Your task to perform on an android device: Search for the best rated vacuums on Target Image 0: 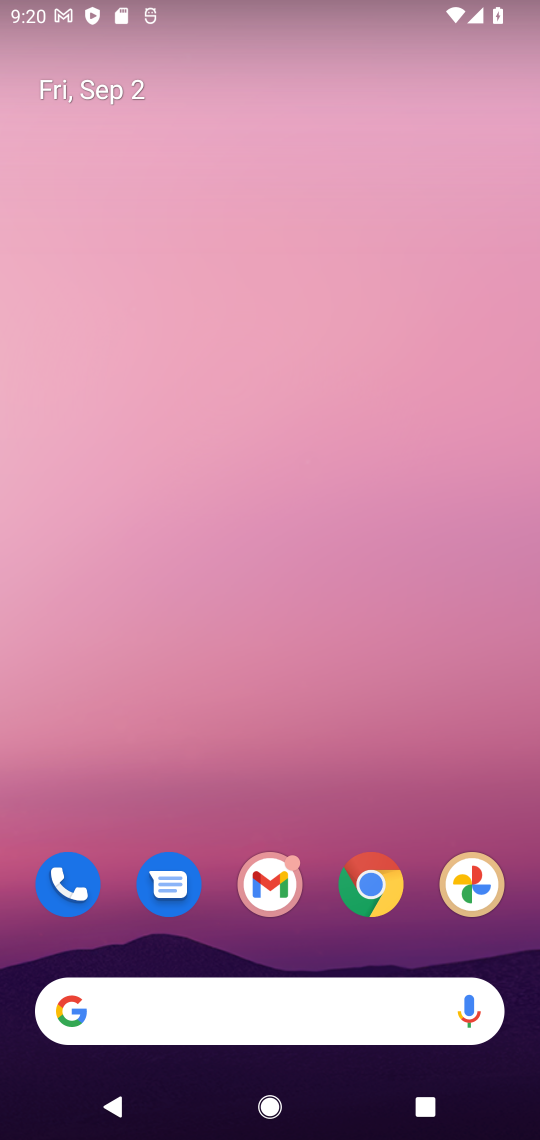
Step 0: click (370, 886)
Your task to perform on an android device: Search for the best rated vacuums on Target Image 1: 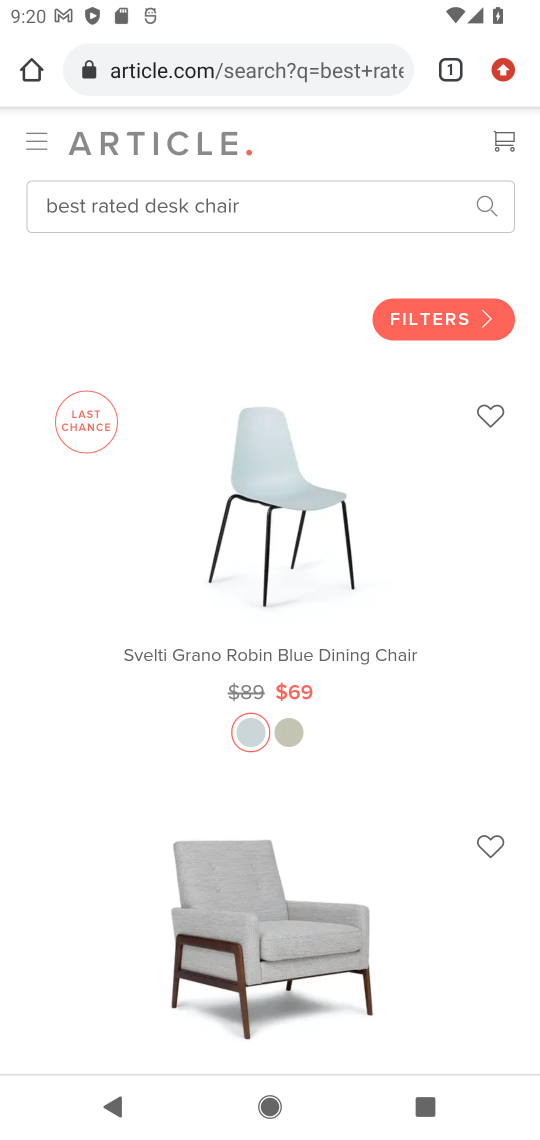
Step 1: click (326, 61)
Your task to perform on an android device: Search for the best rated vacuums on Target Image 2: 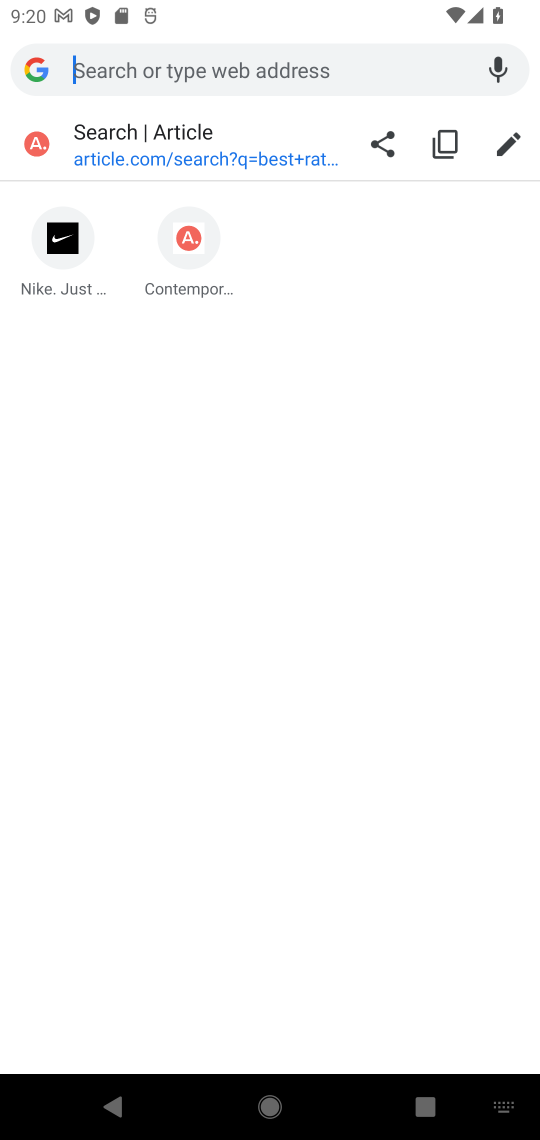
Step 2: type "Target"
Your task to perform on an android device: Search for the best rated vacuums on Target Image 3: 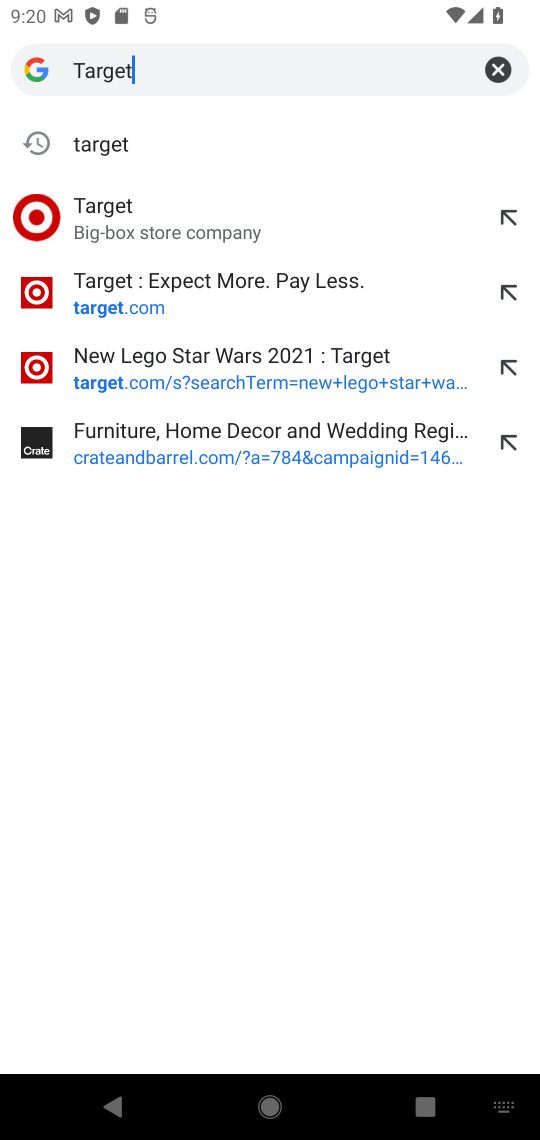
Step 3: click (101, 221)
Your task to perform on an android device: Search for the best rated vacuums on Target Image 4: 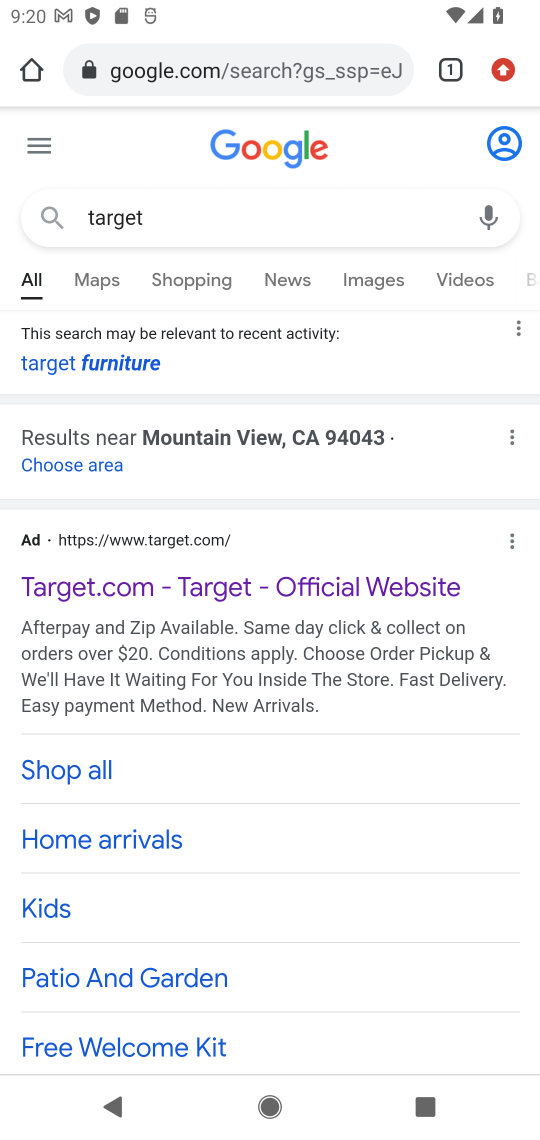
Step 4: click (128, 585)
Your task to perform on an android device: Search for the best rated vacuums on Target Image 5: 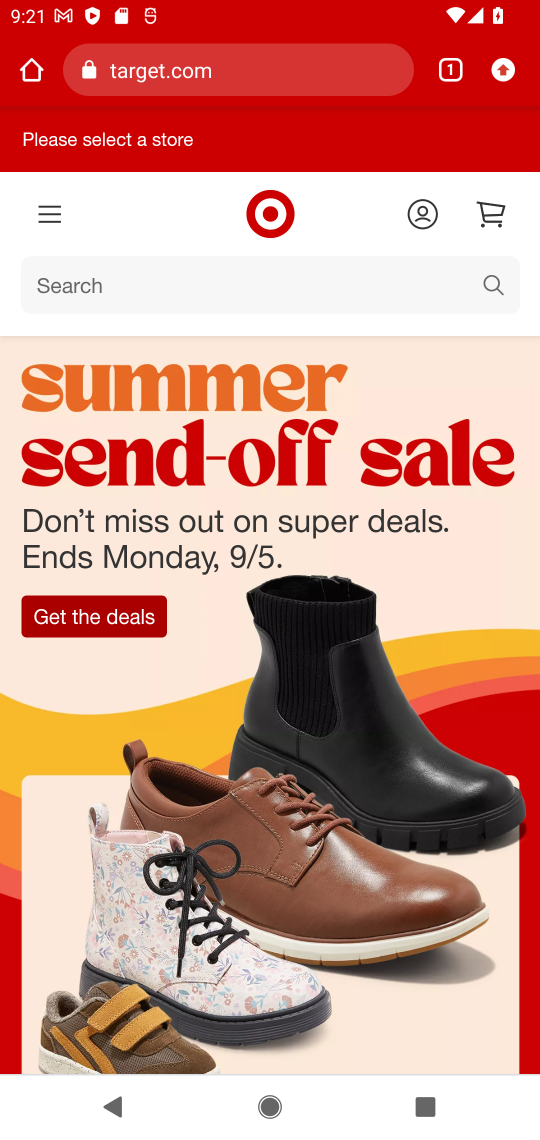
Step 5: click (113, 295)
Your task to perform on an android device: Search for the best rated vacuums on Target Image 6: 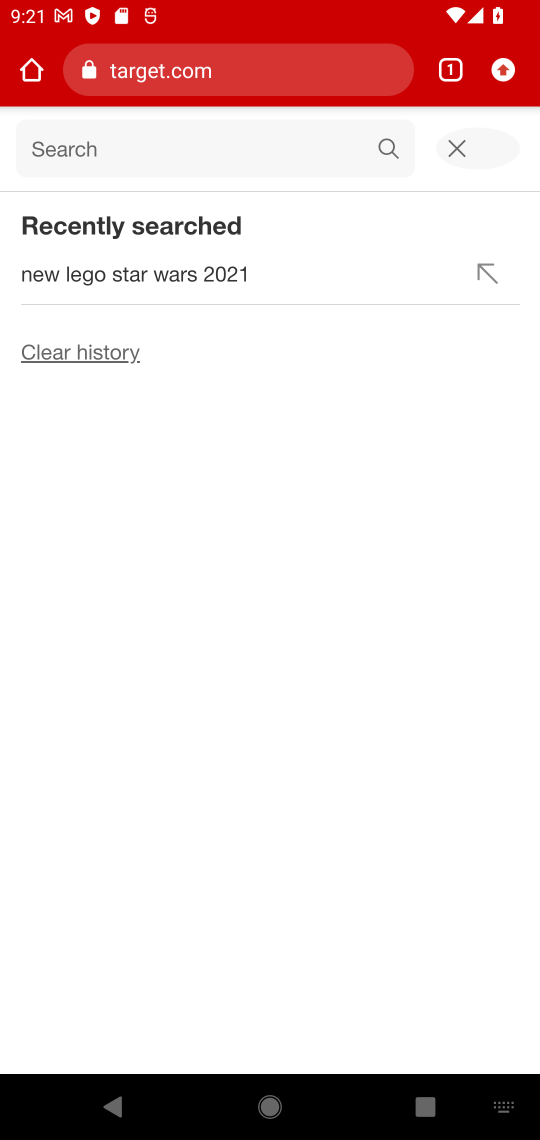
Step 6: type " best rated vacuums"
Your task to perform on an android device: Search for the best rated vacuums on Target Image 7: 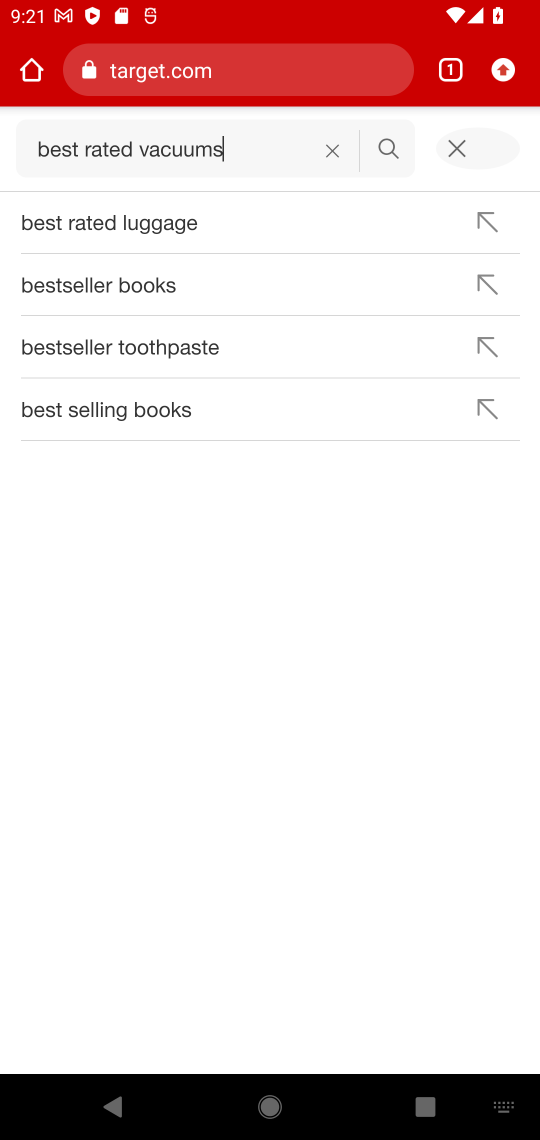
Step 7: click (389, 141)
Your task to perform on an android device: Search for the best rated vacuums on Target Image 8: 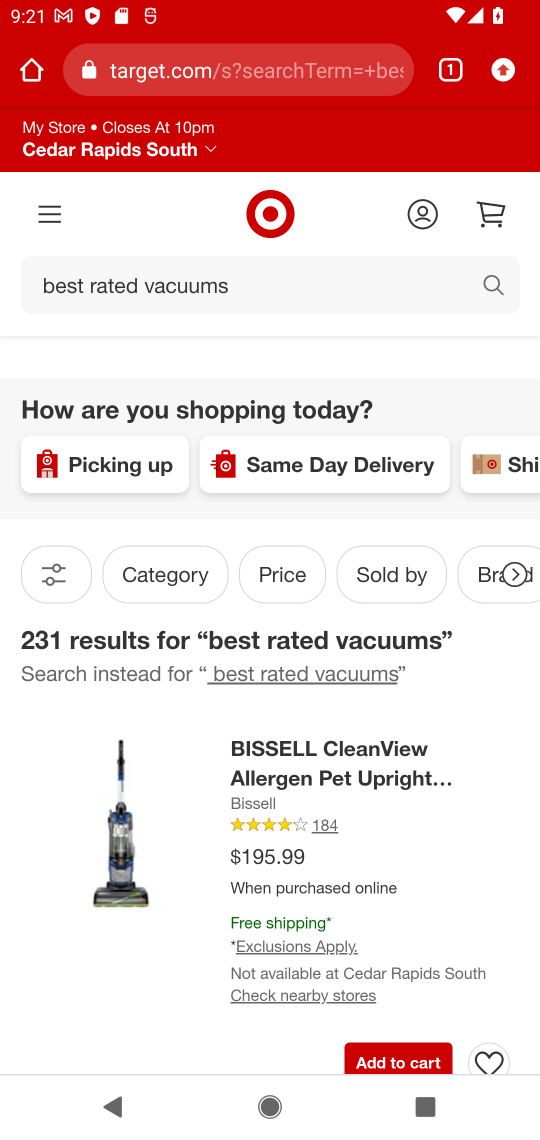
Step 8: task complete